Your task to perform on an android device: What is the news today? Image 0: 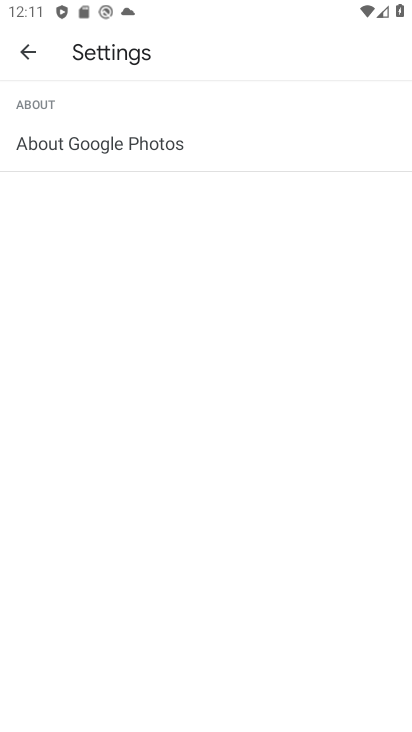
Step 0: press back button
Your task to perform on an android device: What is the news today? Image 1: 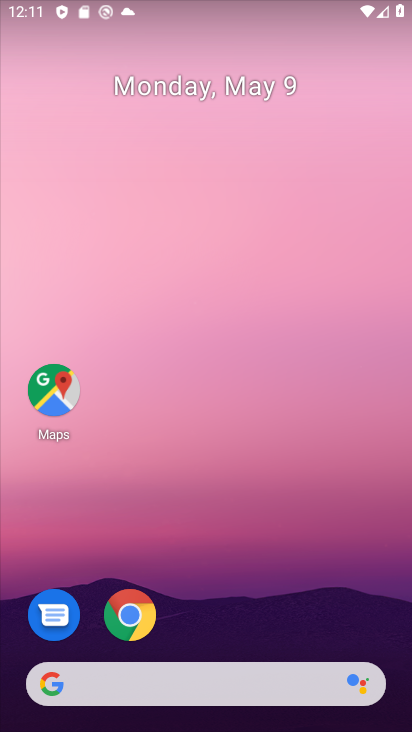
Step 1: drag from (252, 574) to (211, 75)
Your task to perform on an android device: What is the news today? Image 2: 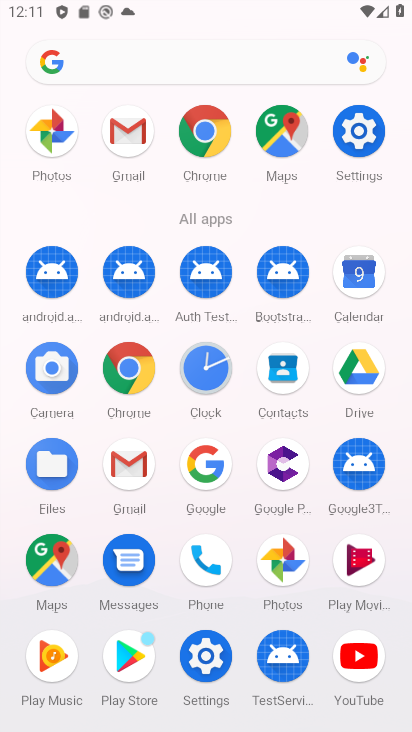
Step 2: click (201, 464)
Your task to perform on an android device: What is the news today? Image 3: 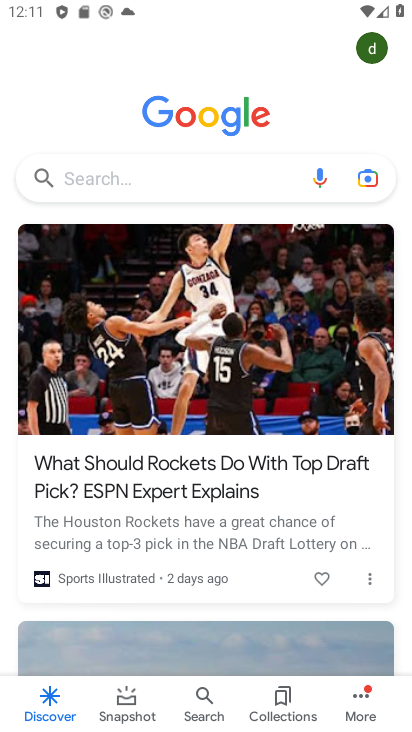
Step 3: click (193, 178)
Your task to perform on an android device: What is the news today? Image 4: 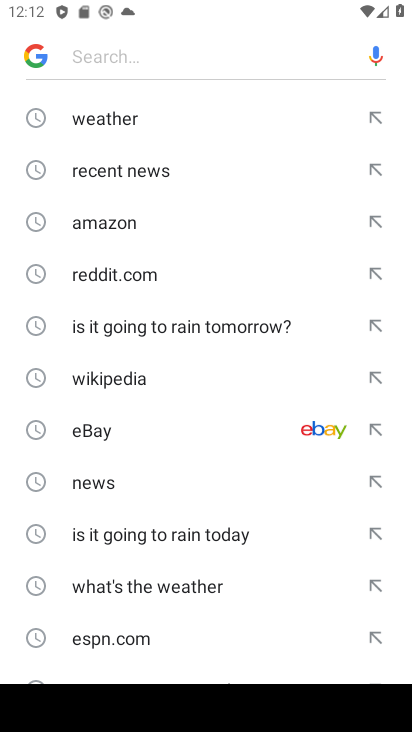
Step 4: type "news today"
Your task to perform on an android device: What is the news today? Image 5: 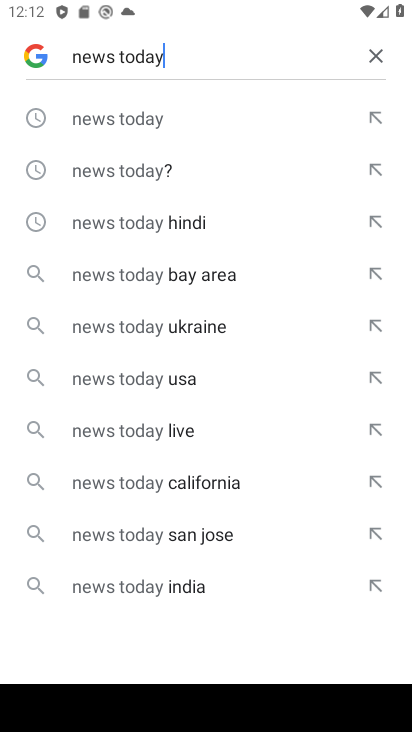
Step 5: click (152, 118)
Your task to perform on an android device: What is the news today? Image 6: 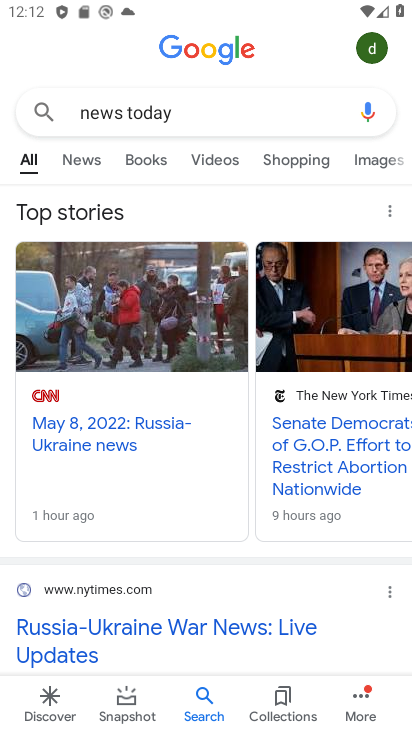
Step 6: task complete